Your task to perform on an android device: all mails in gmail Image 0: 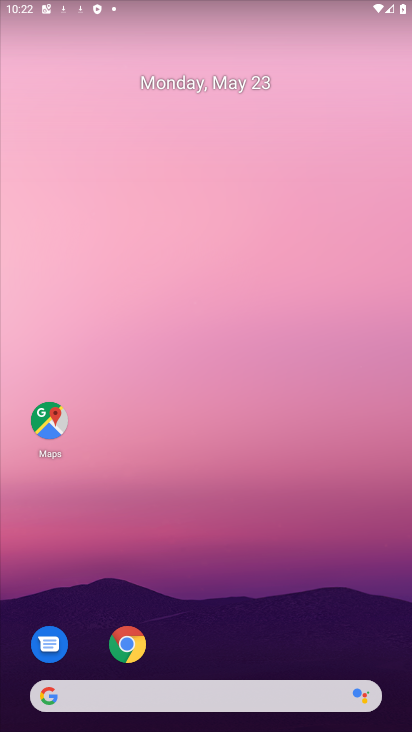
Step 0: drag from (276, 710) to (105, 56)
Your task to perform on an android device: all mails in gmail Image 1: 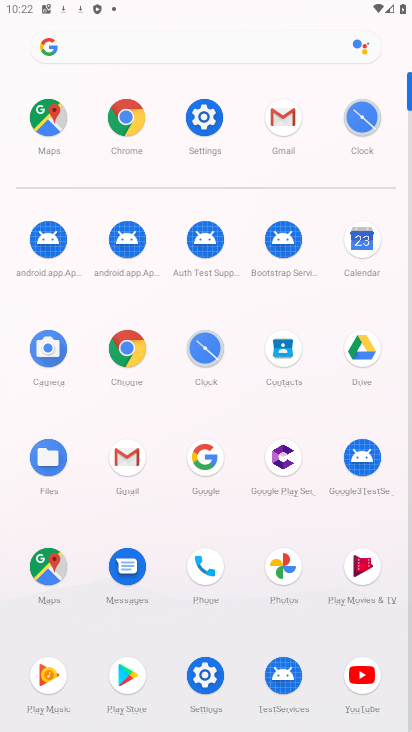
Step 1: click (266, 127)
Your task to perform on an android device: all mails in gmail Image 2: 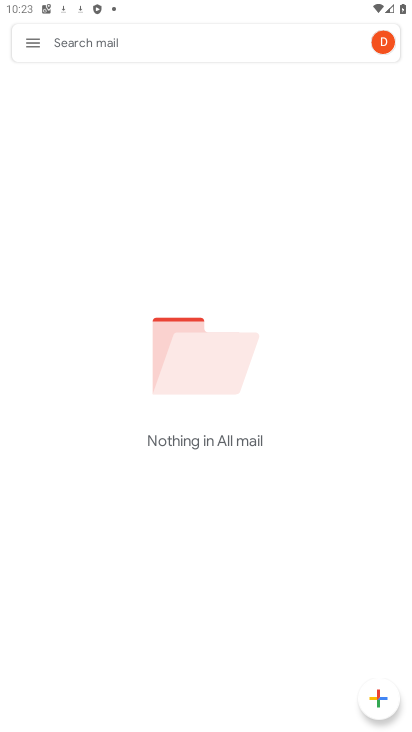
Step 2: click (20, 42)
Your task to perform on an android device: all mails in gmail Image 3: 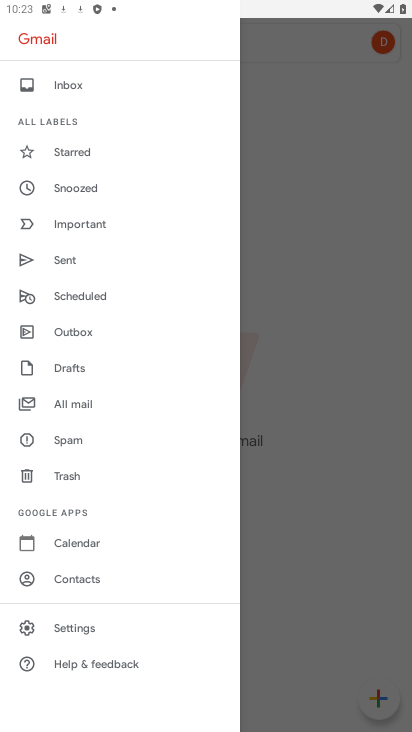
Step 3: click (84, 409)
Your task to perform on an android device: all mails in gmail Image 4: 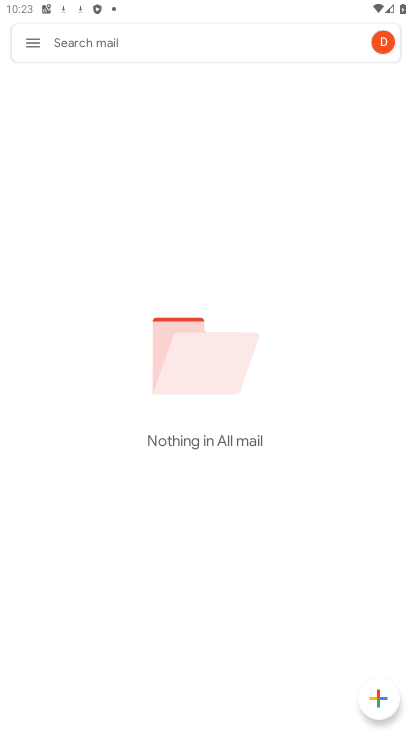
Step 4: task complete